Your task to perform on an android device: open a bookmark in the chrome app Image 0: 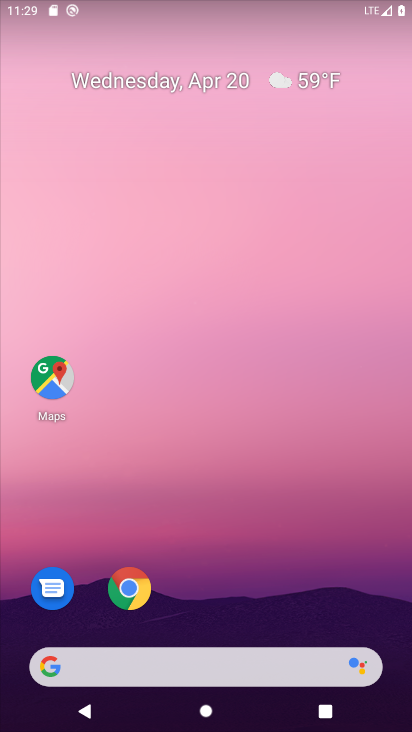
Step 0: click (132, 594)
Your task to perform on an android device: open a bookmark in the chrome app Image 1: 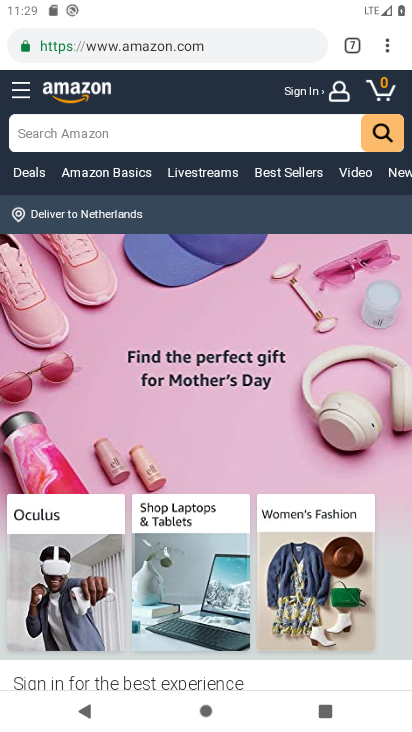
Step 1: click (385, 43)
Your task to perform on an android device: open a bookmark in the chrome app Image 2: 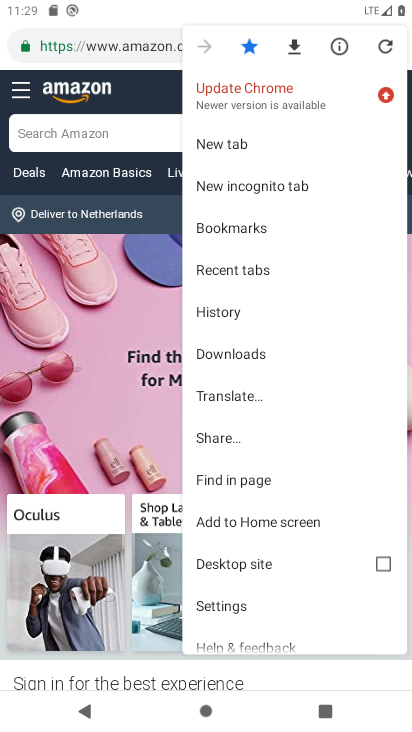
Step 2: click (238, 223)
Your task to perform on an android device: open a bookmark in the chrome app Image 3: 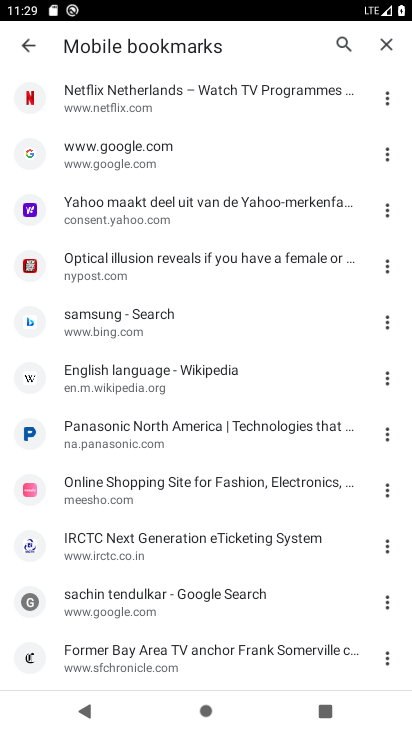
Step 3: task complete